Your task to perform on an android device: What's the weather? Image 0: 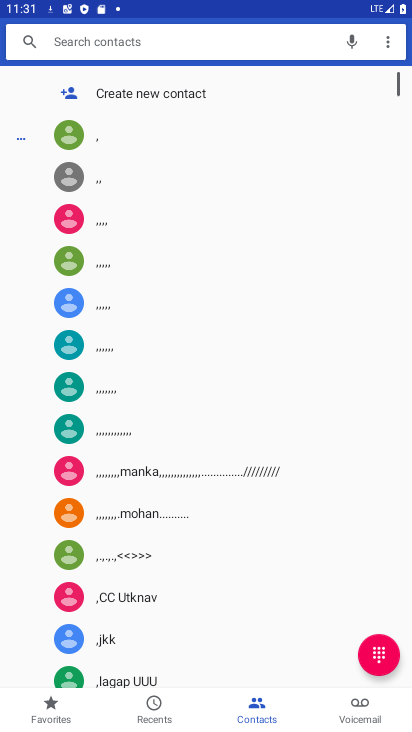
Step 0: press home button
Your task to perform on an android device: What's the weather? Image 1: 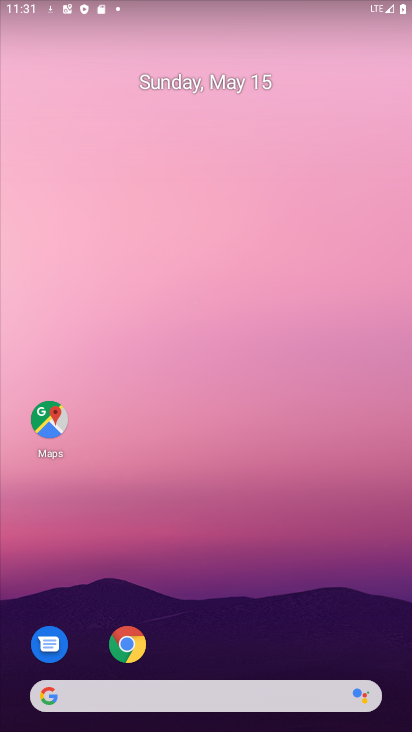
Step 1: drag from (222, 701) to (165, 346)
Your task to perform on an android device: What's the weather? Image 2: 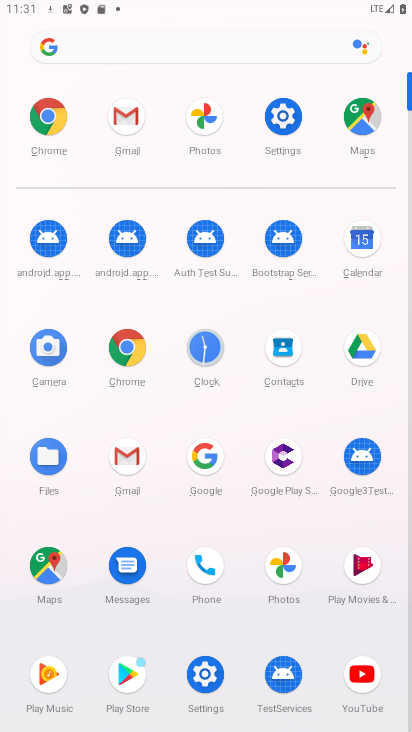
Step 2: click (115, 51)
Your task to perform on an android device: What's the weather? Image 3: 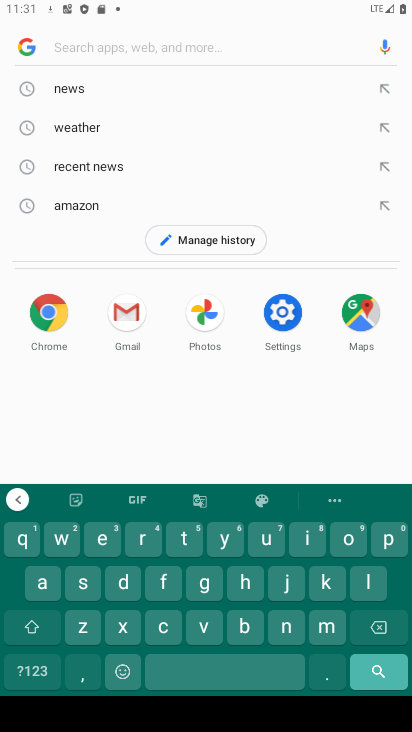
Step 3: click (106, 117)
Your task to perform on an android device: What's the weather? Image 4: 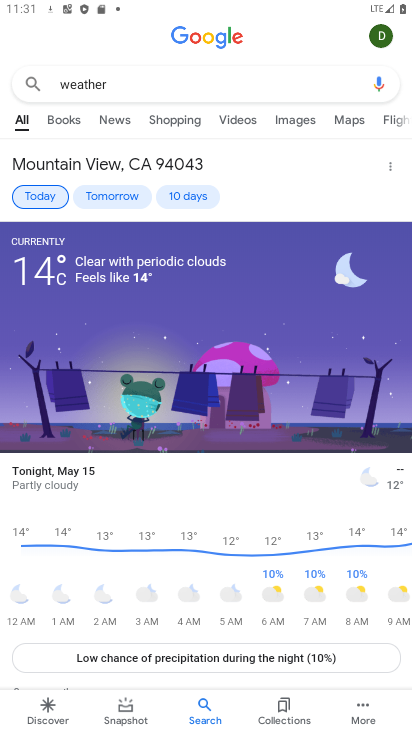
Step 4: task complete